Your task to perform on an android device: turn off location Image 0: 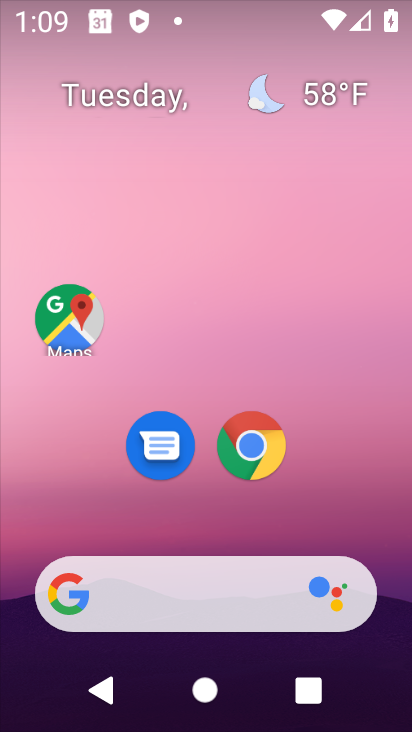
Step 0: drag from (366, 519) to (371, 152)
Your task to perform on an android device: turn off location Image 1: 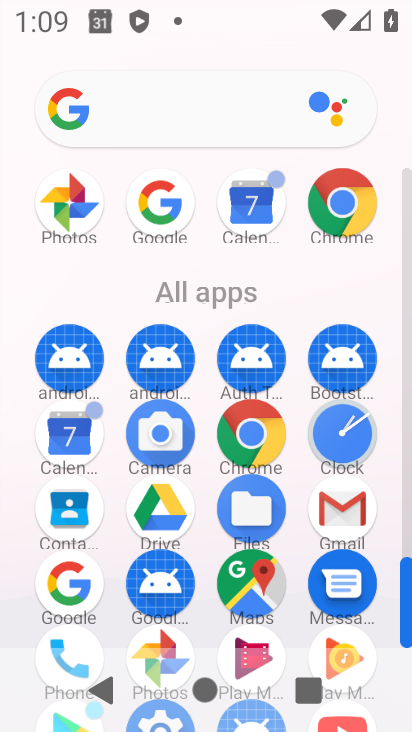
Step 1: drag from (295, 527) to (309, 260)
Your task to perform on an android device: turn off location Image 2: 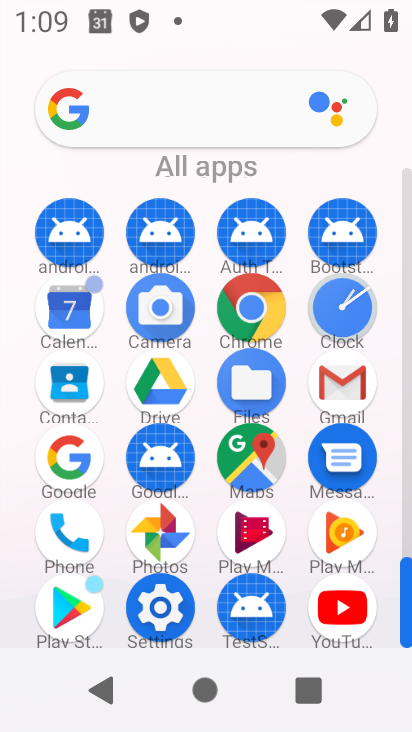
Step 2: click (170, 597)
Your task to perform on an android device: turn off location Image 3: 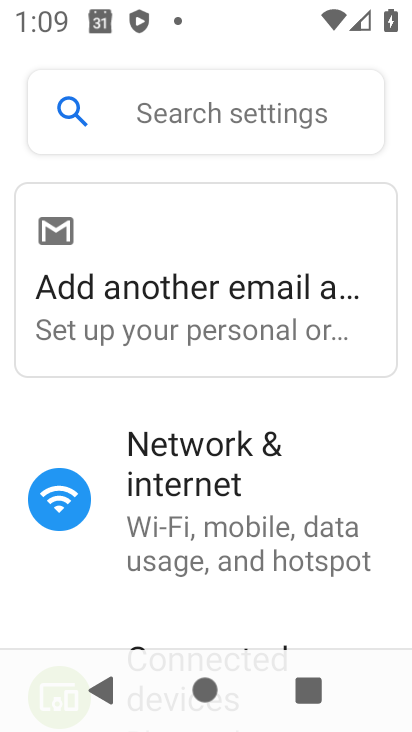
Step 3: drag from (334, 474) to (337, 337)
Your task to perform on an android device: turn off location Image 4: 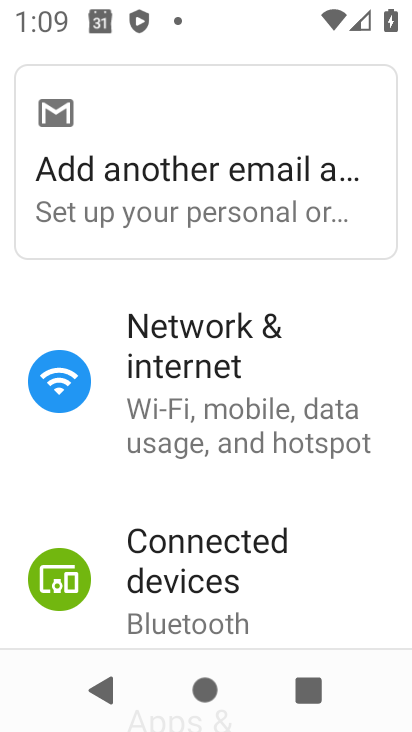
Step 4: drag from (337, 512) to (335, 390)
Your task to perform on an android device: turn off location Image 5: 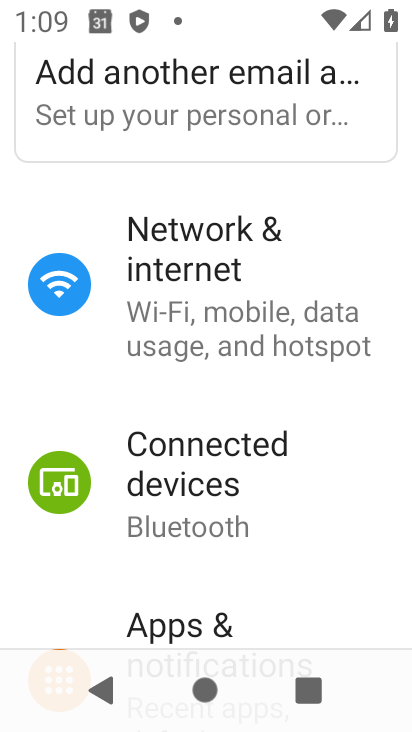
Step 5: drag from (338, 540) to (337, 374)
Your task to perform on an android device: turn off location Image 6: 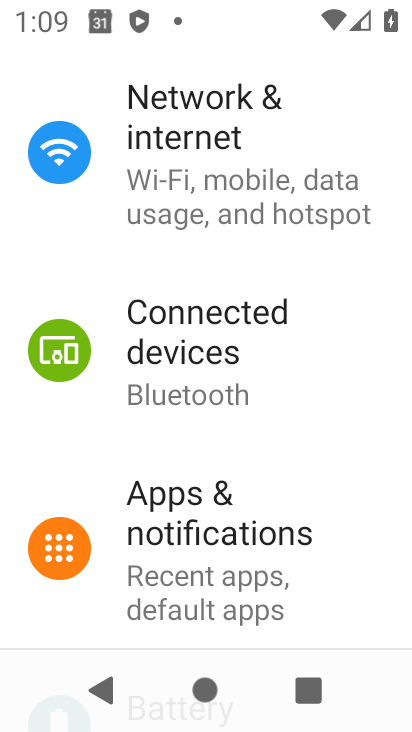
Step 6: drag from (328, 539) to (334, 422)
Your task to perform on an android device: turn off location Image 7: 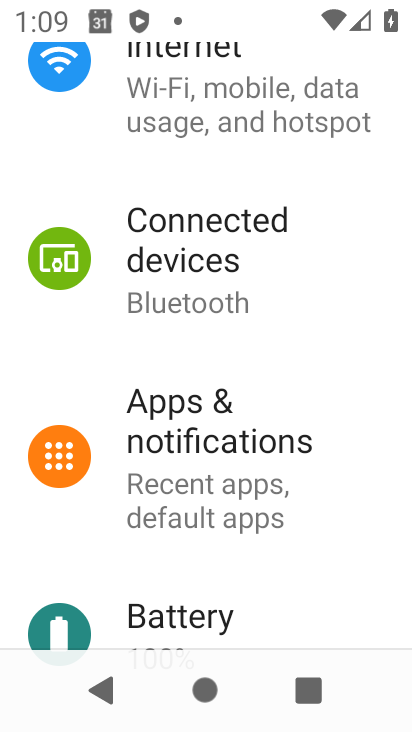
Step 7: drag from (337, 543) to (343, 428)
Your task to perform on an android device: turn off location Image 8: 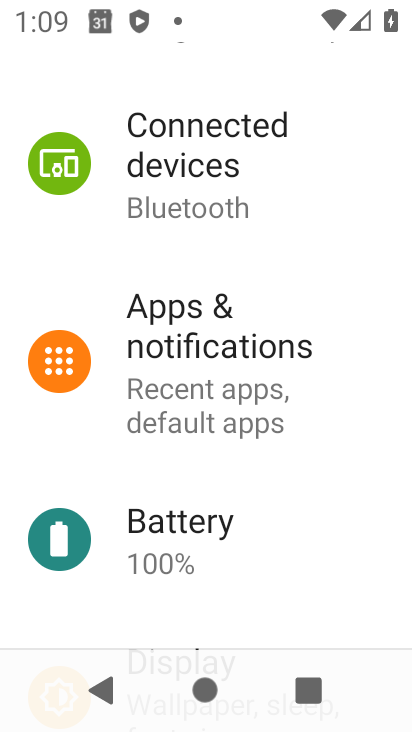
Step 8: drag from (330, 560) to (330, 430)
Your task to perform on an android device: turn off location Image 9: 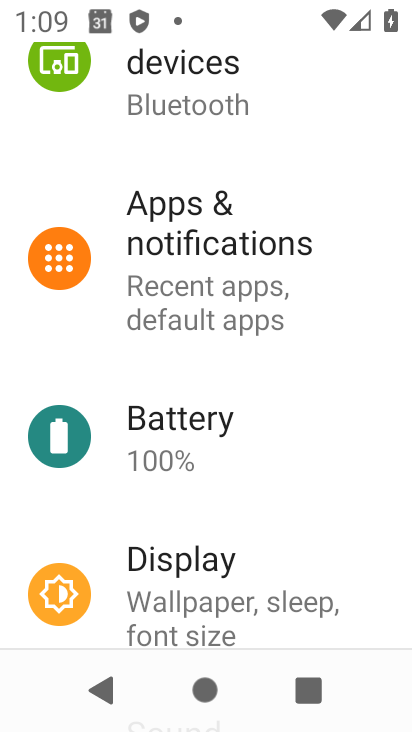
Step 9: drag from (336, 554) to (338, 427)
Your task to perform on an android device: turn off location Image 10: 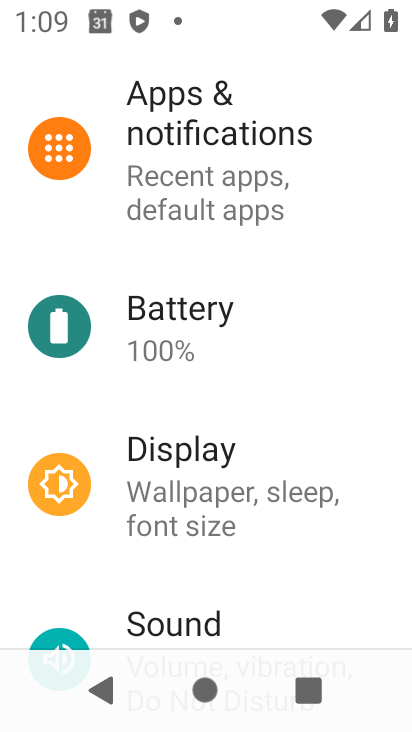
Step 10: drag from (345, 574) to (350, 441)
Your task to perform on an android device: turn off location Image 11: 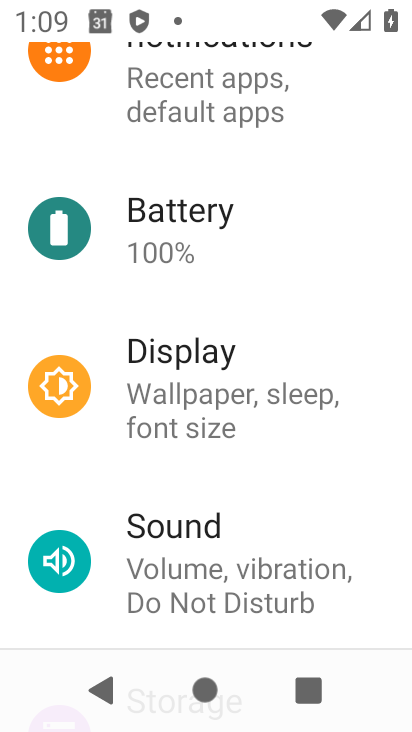
Step 11: drag from (352, 609) to (351, 464)
Your task to perform on an android device: turn off location Image 12: 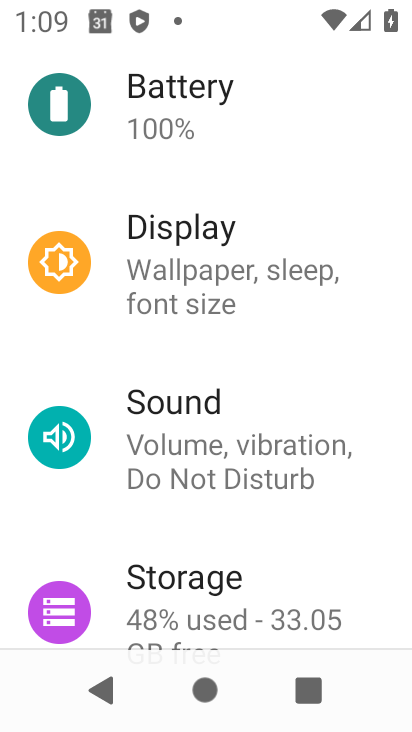
Step 12: drag from (356, 574) to (361, 422)
Your task to perform on an android device: turn off location Image 13: 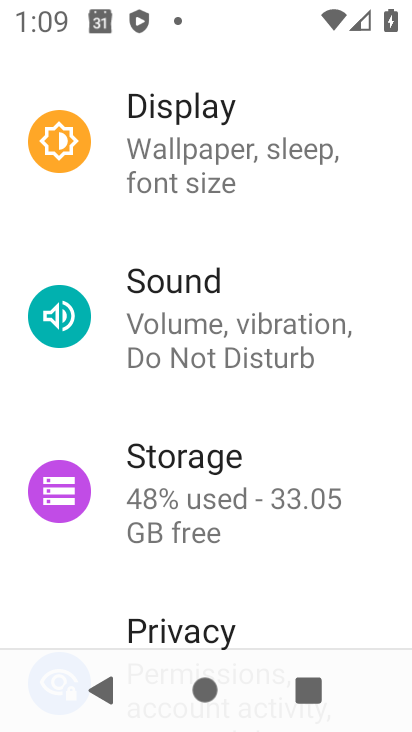
Step 13: drag from (316, 551) to (345, 376)
Your task to perform on an android device: turn off location Image 14: 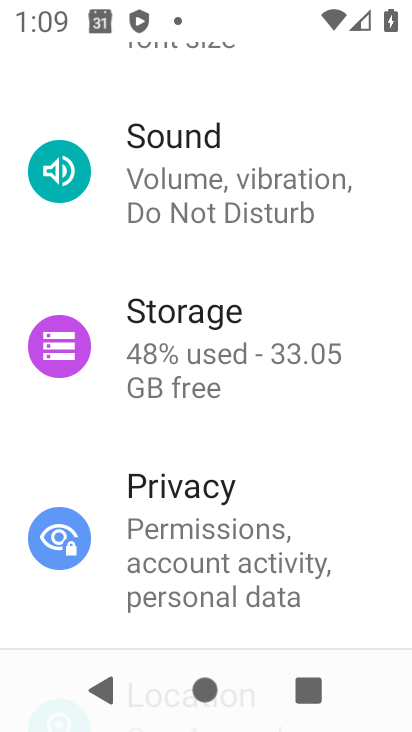
Step 14: drag from (327, 489) to (325, 293)
Your task to perform on an android device: turn off location Image 15: 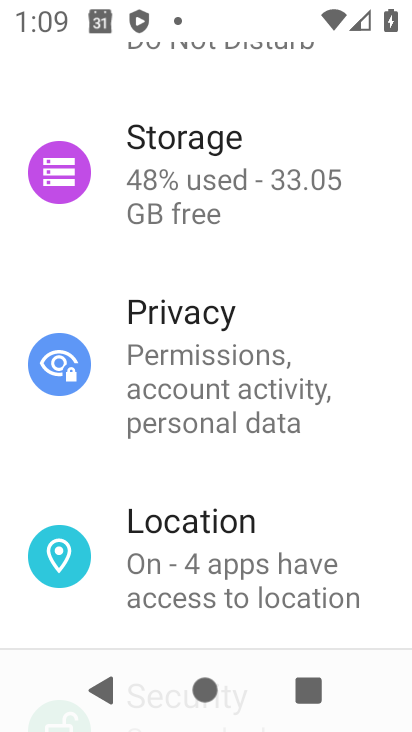
Step 15: drag from (320, 466) to (343, 314)
Your task to perform on an android device: turn off location Image 16: 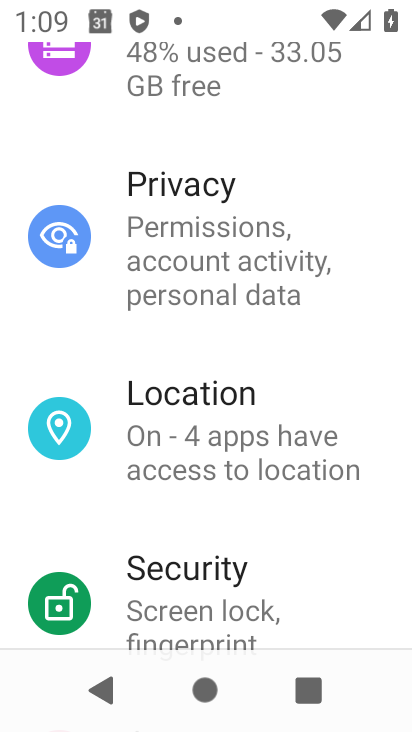
Step 16: click (280, 441)
Your task to perform on an android device: turn off location Image 17: 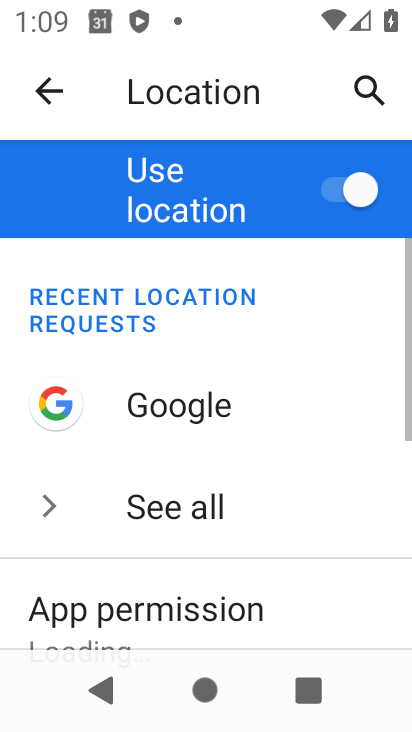
Step 17: click (365, 188)
Your task to perform on an android device: turn off location Image 18: 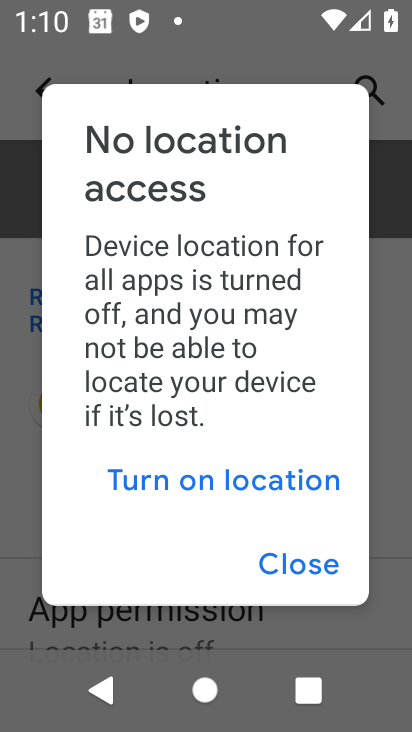
Step 18: task complete